Your task to perform on an android device: empty trash in google photos Image 0: 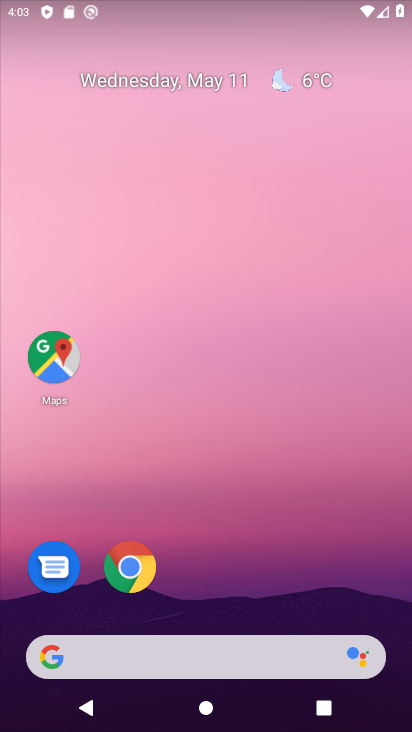
Step 0: drag from (186, 667) to (316, 84)
Your task to perform on an android device: empty trash in google photos Image 1: 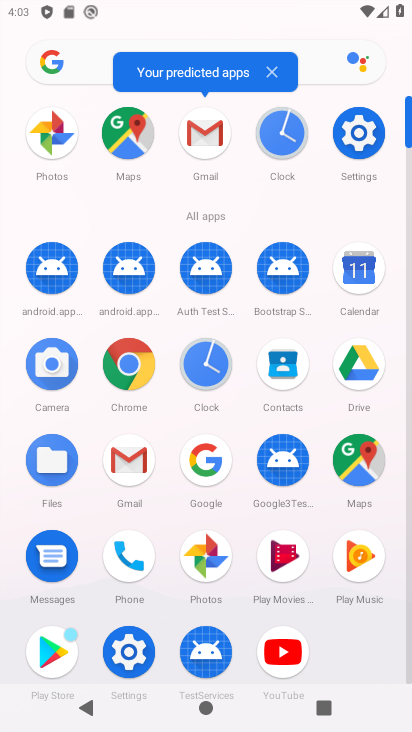
Step 1: click (218, 575)
Your task to perform on an android device: empty trash in google photos Image 2: 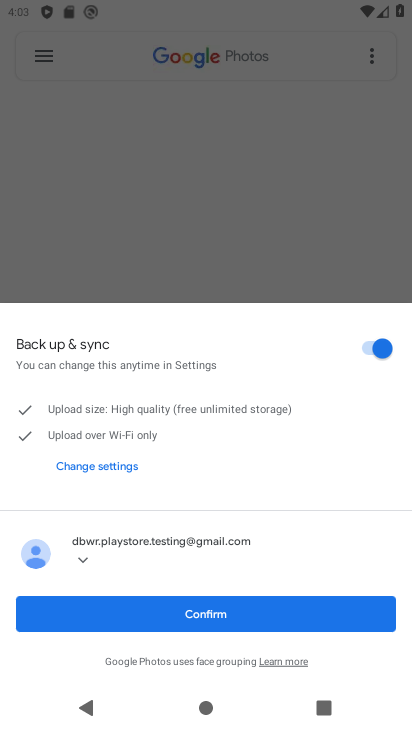
Step 2: click (224, 624)
Your task to perform on an android device: empty trash in google photos Image 3: 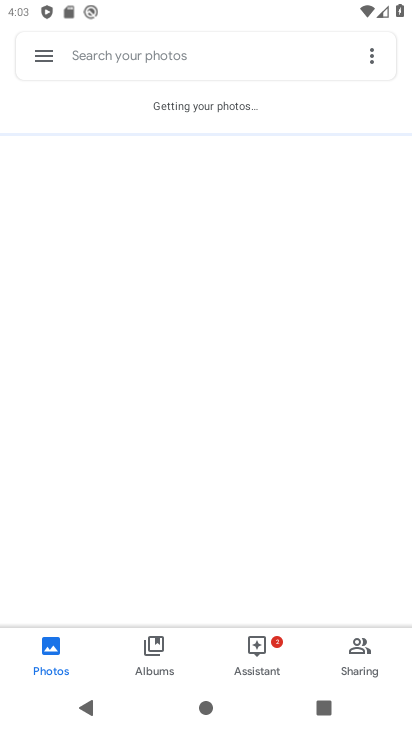
Step 3: click (53, 63)
Your task to perform on an android device: empty trash in google photos Image 4: 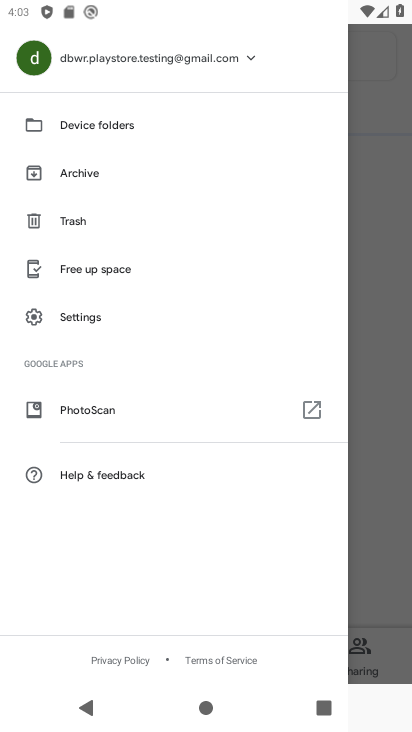
Step 4: click (88, 227)
Your task to perform on an android device: empty trash in google photos Image 5: 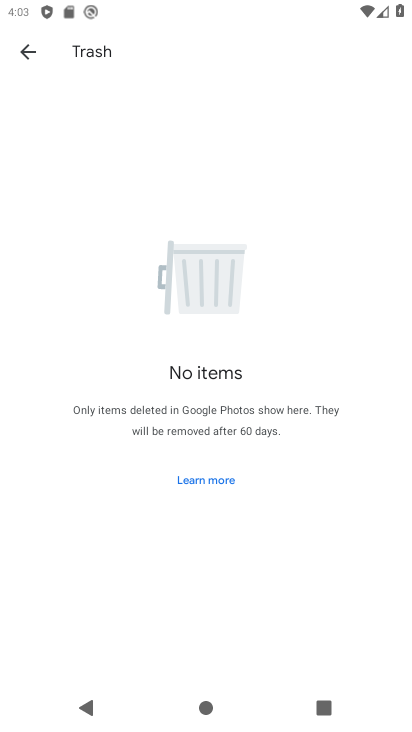
Step 5: task complete